Your task to perform on an android device: turn off notifications settings in the gmail app Image 0: 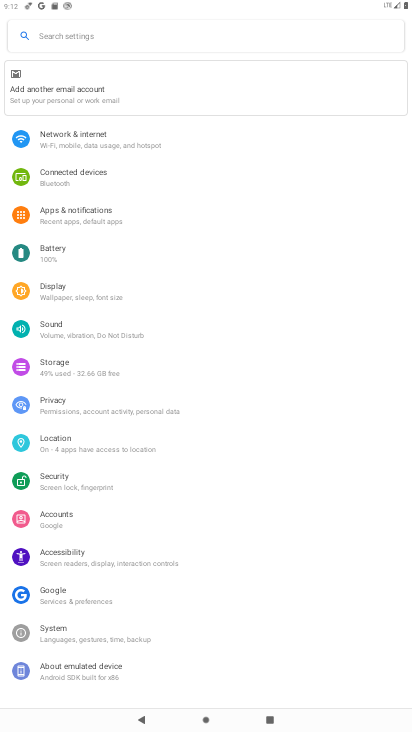
Step 0: press home button
Your task to perform on an android device: turn off notifications settings in the gmail app Image 1: 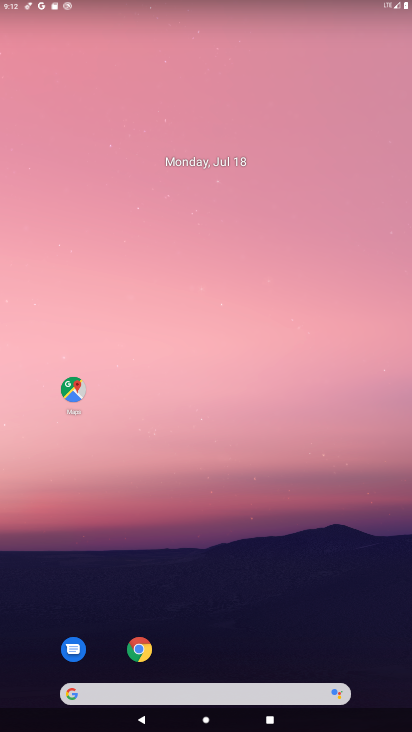
Step 1: drag from (174, 698) to (188, 353)
Your task to perform on an android device: turn off notifications settings in the gmail app Image 2: 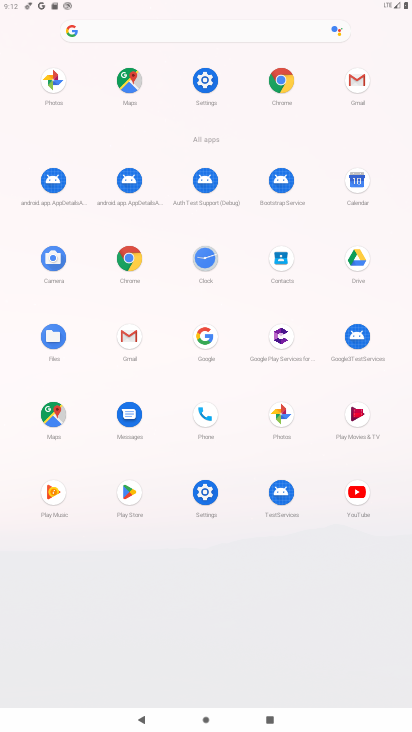
Step 2: click (138, 327)
Your task to perform on an android device: turn off notifications settings in the gmail app Image 3: 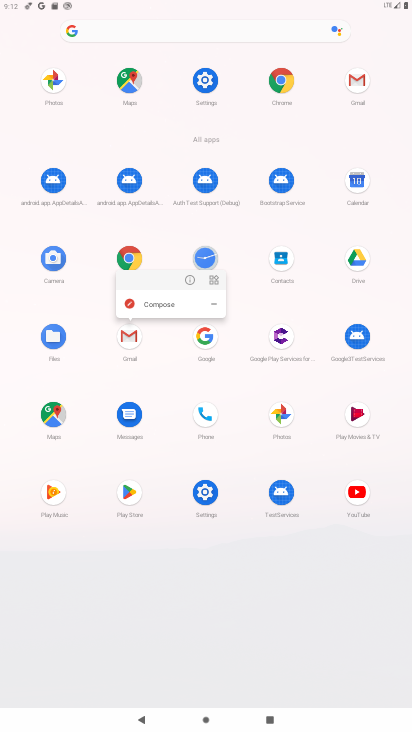
Step 3: click (133, 340)
Your task to perform on an android device: turn off notifications settings in the gmail app Image 4: 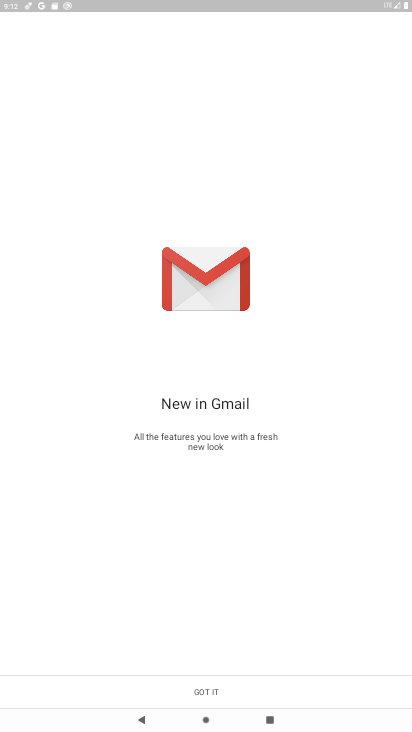
Step 4: click (220, 689)
Your task to perform on an android device: turn off notifications settings in the gmail app Image 5: 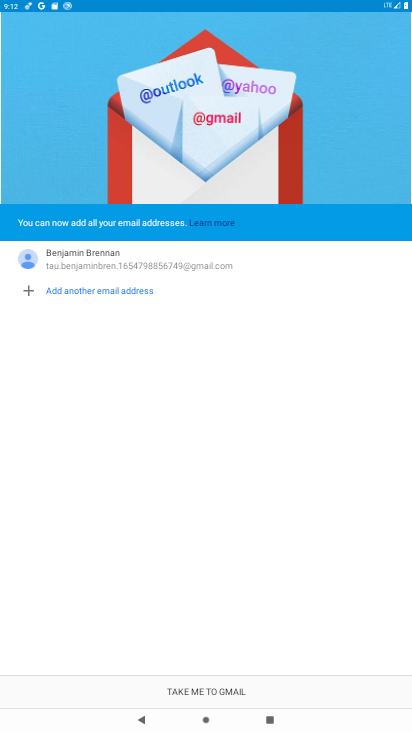
Step 5: click (220, 689)
Your task to perform on an android device: turn off notifications settings in the gmail app Image 6: 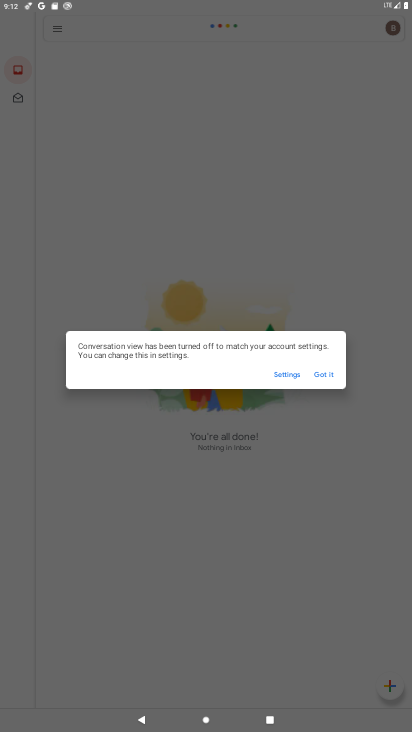
Step 6: click (325, 374)
Your task to perform on an android device: turn off notifications settings in the gmail app Image 7: 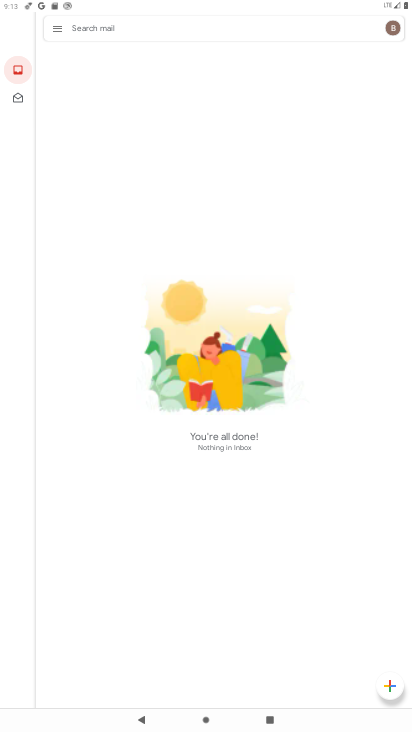
Step 7: click (58, 31)
Your task to perform on an android device: turn off notifications settings in the gmail app Image 8: 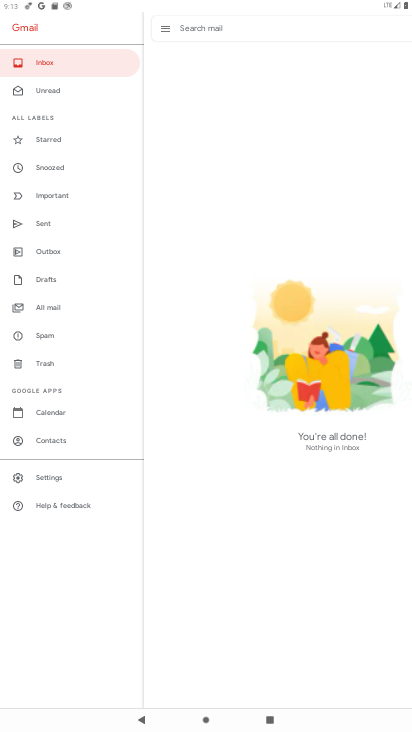
Step 8: click (79, 473)
Your task to perform on an android device: turn off notifications settings in the gmail app Image 9: 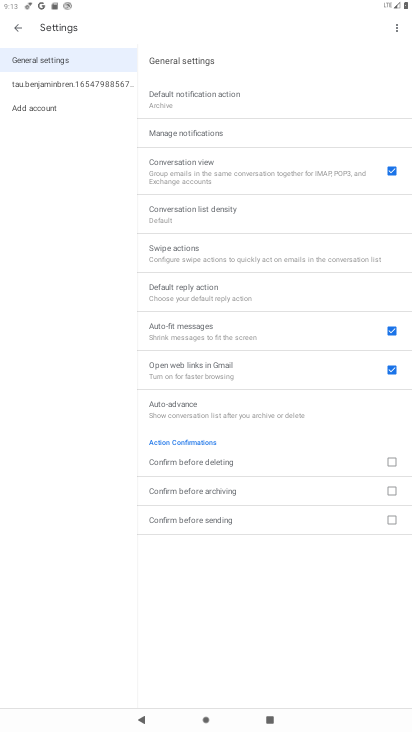
Step 9: click (183, 133)
Your task to perform on an android device: turn off notifications settings in the gmail app Image 10: 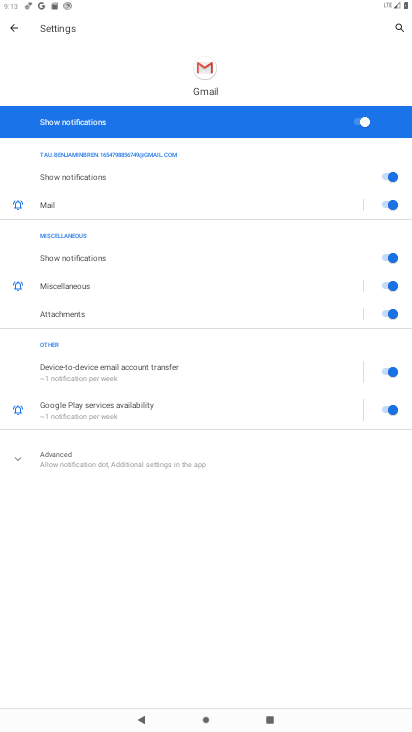
Step 10: click (363, 119)
Your task to perform on an android device: turn off notifications settings in the gmail app Image 11: 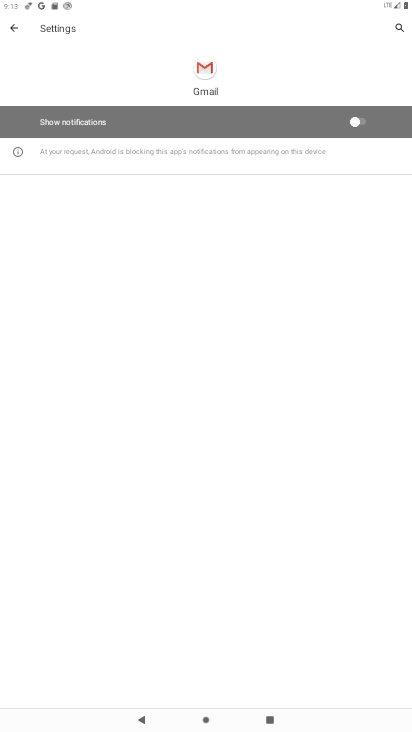
Step 11: task complete